Your task to perform on an android device: turn off smart reply in the gmail app Image 0: 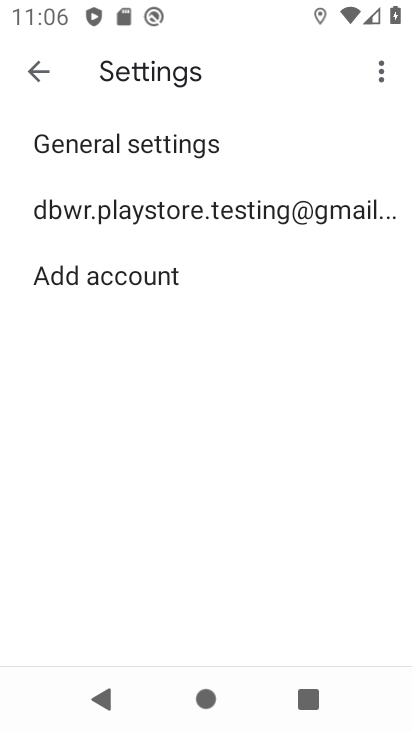
Step 0: press home button
Your task to perform on an android device: turn off smart reply in the gmail app Image 1: 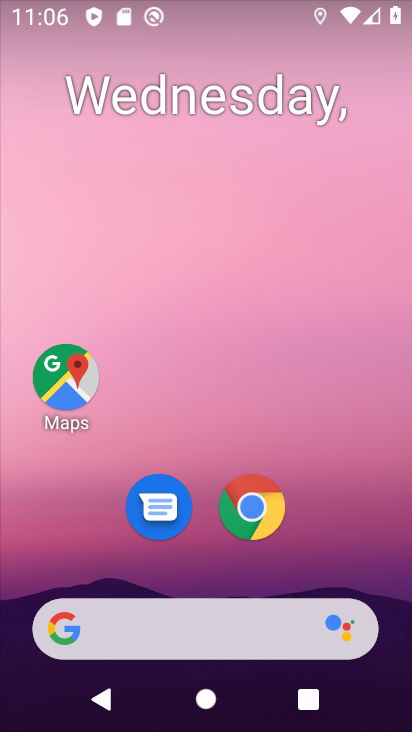
Step 1: drag from (363, 544) to (365, 144)
Your task to perform on an android device: turn off smart reply in the gmail app Image 2: 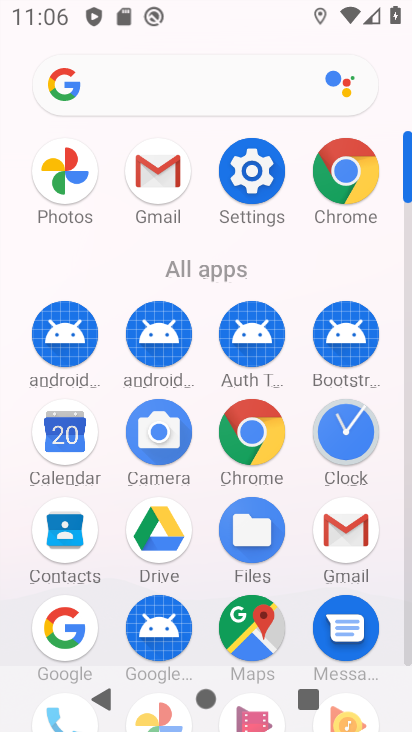
Step 2: click (341, 530)
Your task to perform on an android device: turn off smart reply in the gmail app Image 3: 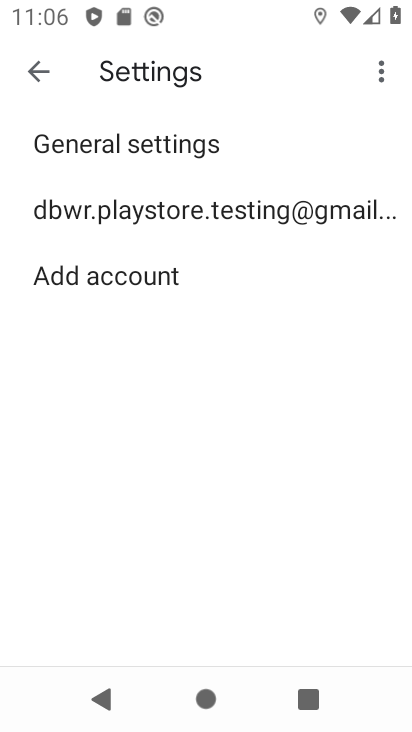
Step 3: click (300, 207)
Your task to perform on an android device: turn off smart reply in the gmail app Image 4: 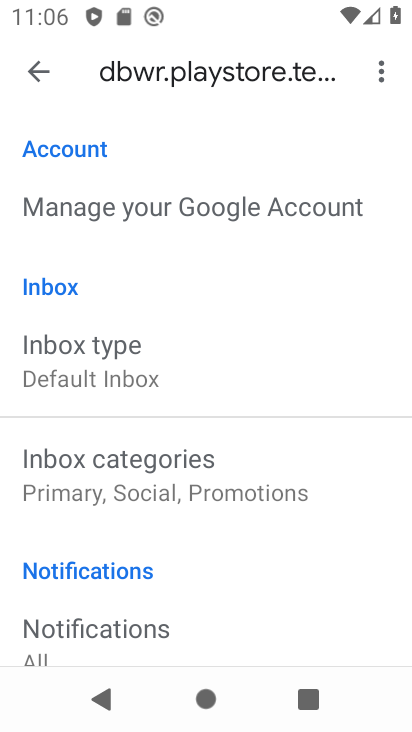
Step 4: drag from (326, 545) to (342, 404)
Your task to perform on an android device: turn off smart reply in the gmail app Image 5: 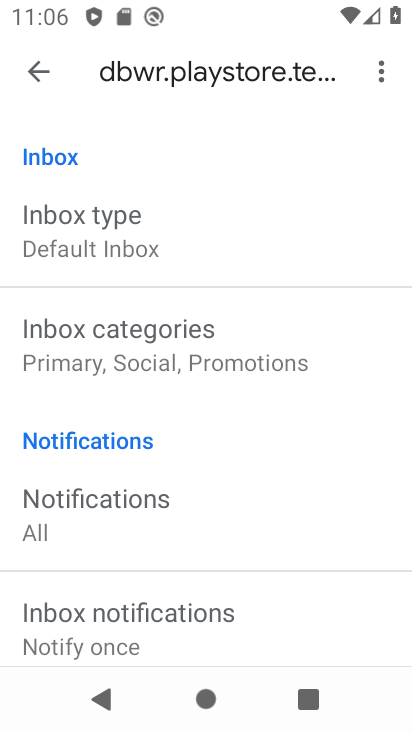
Step 5: drag from (325, 562) to (341, 397)
Your task to perform on an android device: turn off smart reply in the gmail app Image 6: 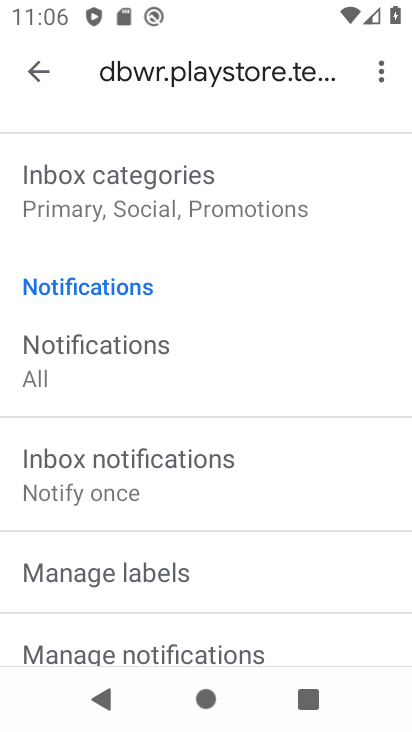
Step 6: drag from (326, 569) to (337, 395)
Your task to perform on an android device: turn off smart reply in the gmail app Image 7: 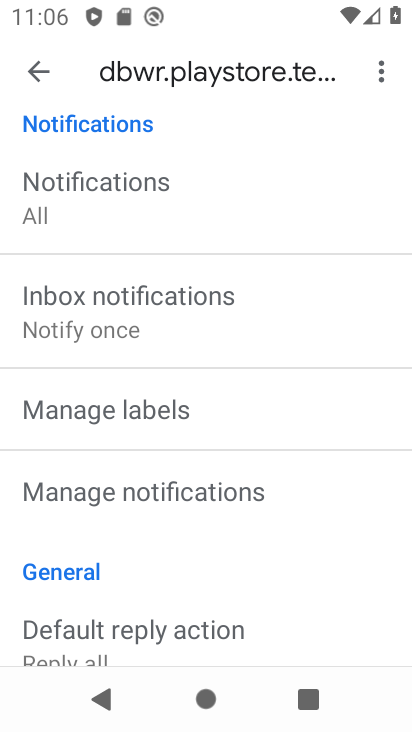
Step 7: drag from (331, 575) to (345, 395)
Your task to perform on an android device: turn off smart reply in the gmail app Image 8: 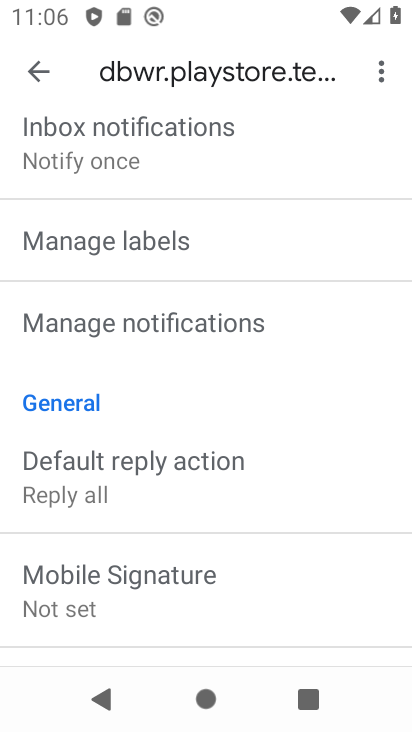
Step 8: drag from (327, 570) to (337, 418)
Your task to perform on an android device: turn off smart reply in the gmail app Image 9: 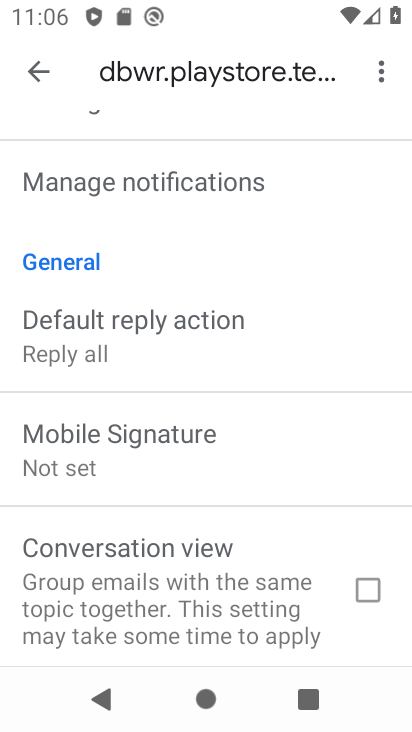
Step 9: drag from (319, 593) to (328, 421)
Your task to perform on an android device: turn off smart reply in the gmail app Image 10: 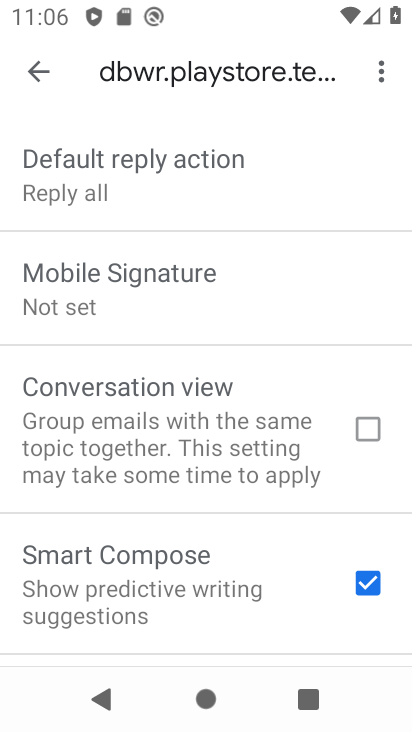
Step 10: drag from (286, 590) to (282, 424)
Your task to perform on an android device: turn off smart reply in the gmail app Image 11: 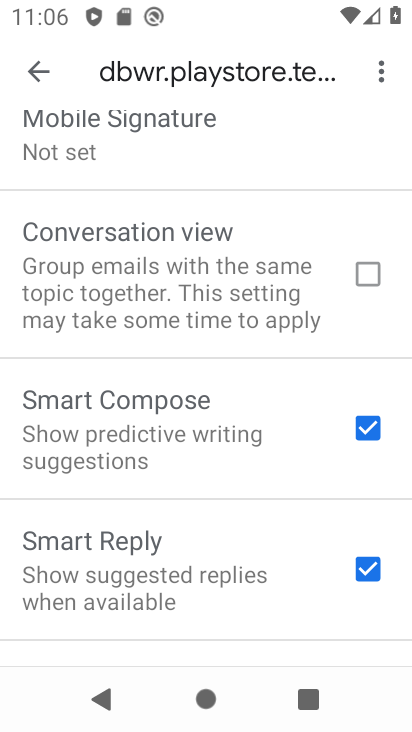
Step 11: drag from (274, 599) to (277, 429)
Your task to perform on an android device: turn off smart reply in the gmail app Image 12: 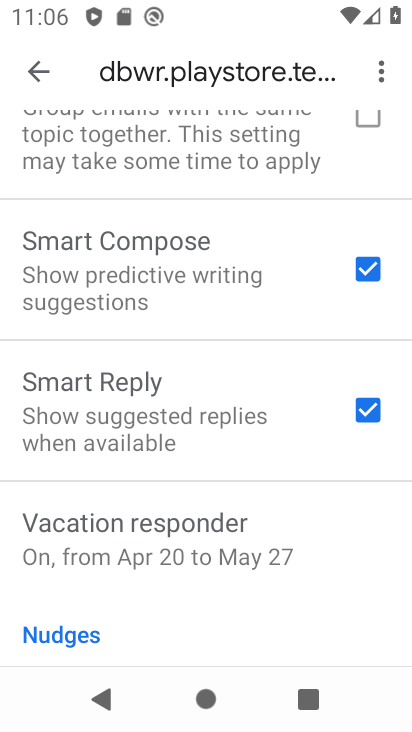
Step 12: drag from (276, 615) to (286, 464)
Your task to perform on an android device: turn off smart reply in the gmail app Image 13: 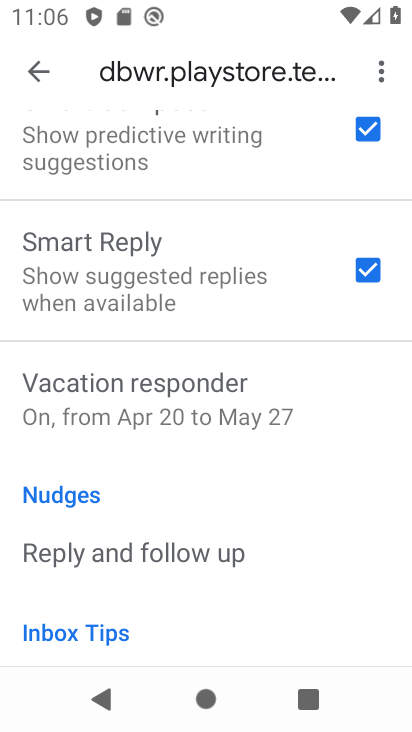
Step 13: click (364, 267)
Your task to perform on an android device: turn off smart reply in the gmail app Image 14: 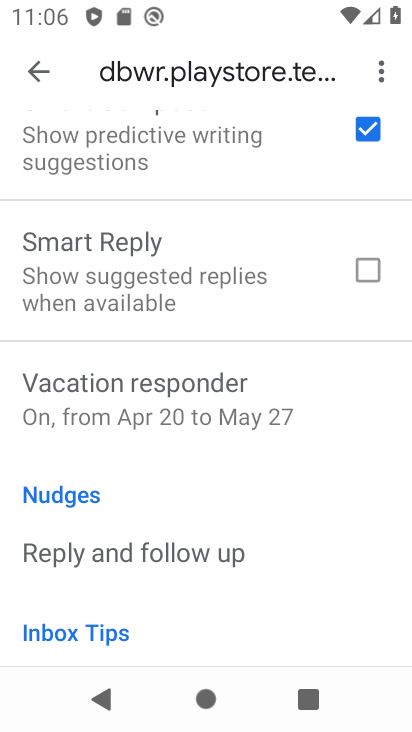
Step 14: task complete